Your task to perform on an android device: change keyboard looks Image 0: 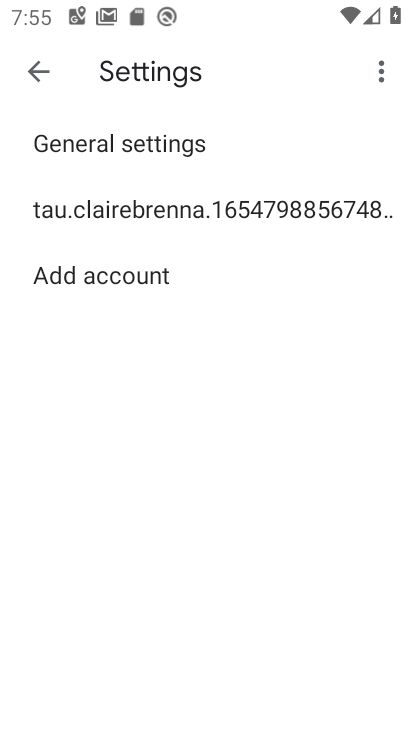
Step 0: press home button
Your task to perform on an android device: change keyboard looks Image 1: 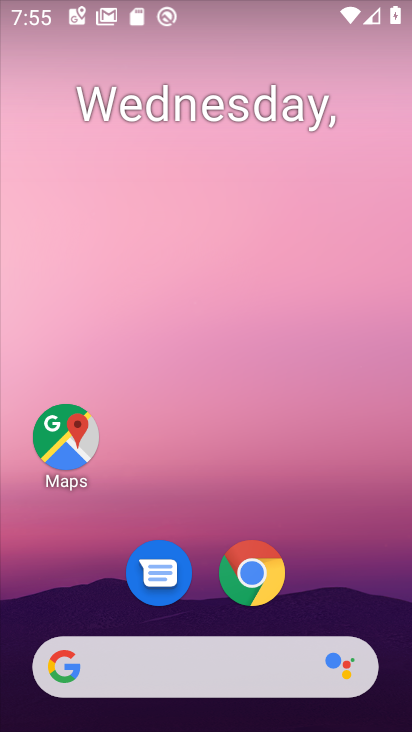
Step 1: drag from (311, 610) to (291, 12)
Your task to perform on an android device: change keyboard looks Image 2: 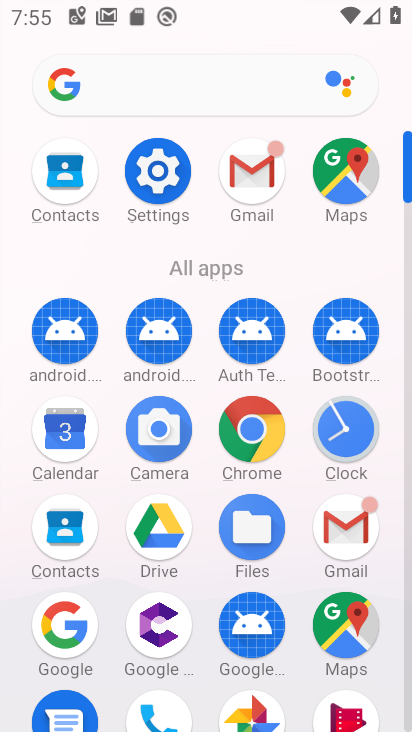
Step 2: click (148, 165)
Your task to perform on an android device: change keyboard looks Image 3: 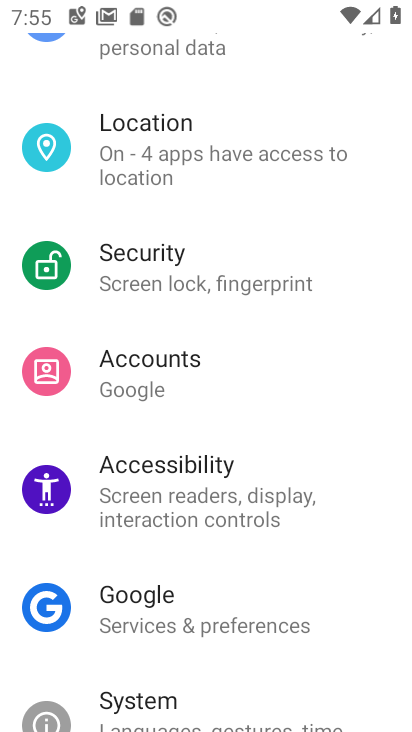
Step 3: drag from (382, 675) to (382, 425)
Your task to perform on an android device: change keyboard looks Image 4: 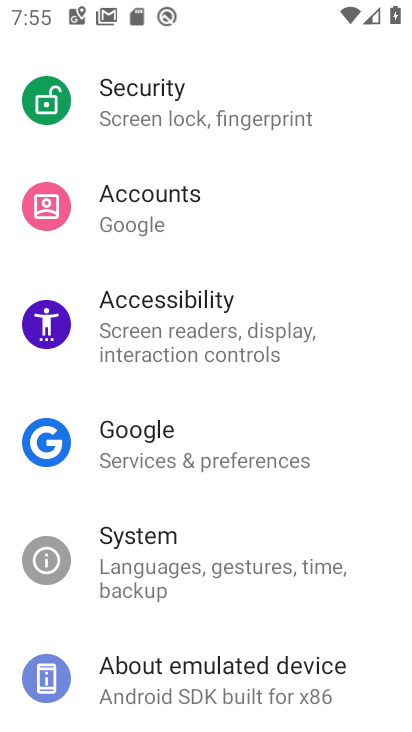
Step 4: click (145, 566)
Your task to perform on an android device: change keyboard looks Image 5: 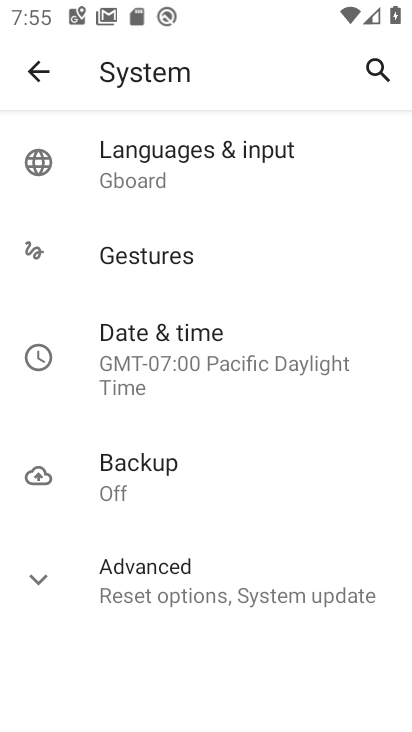
Step 5: click (135, 168)
Your task to perform on an android device: change keyboard looks Image 6: 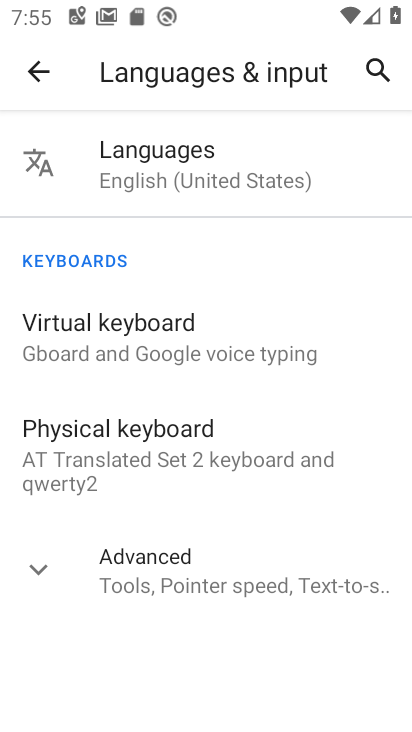
Step 6: click (88, 339)
Your task to perform on an android device: change keyboard looks Image 7: 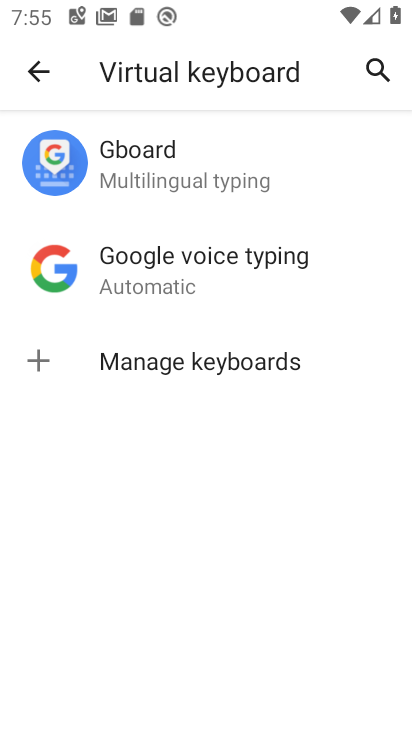
Step 7: click (107, 168)
Your task to perform on an android device: change keyboard looks Image 8: 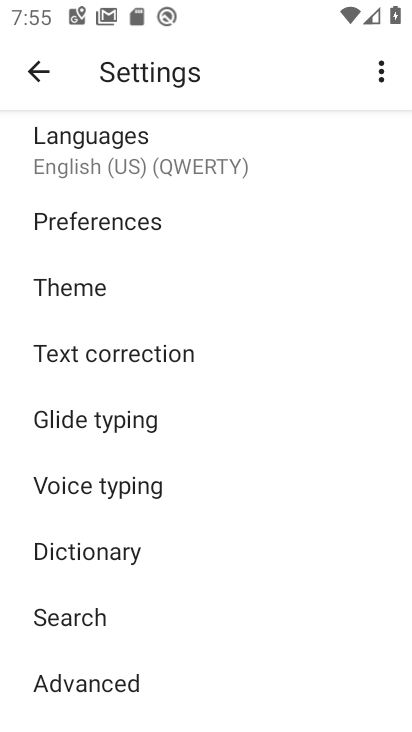
Step 8: click (50, 293)
Your task to perform on an android device: change keyboard looks Image 9: 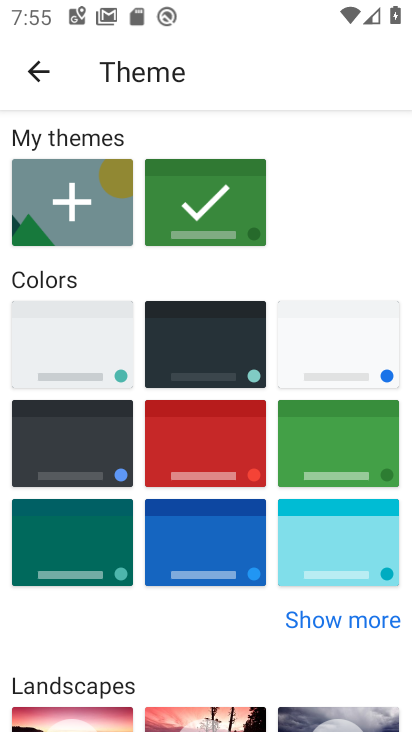
Step 9: click (178, 533)
Your task to perform on an android device: change keyboard looks Image 10: 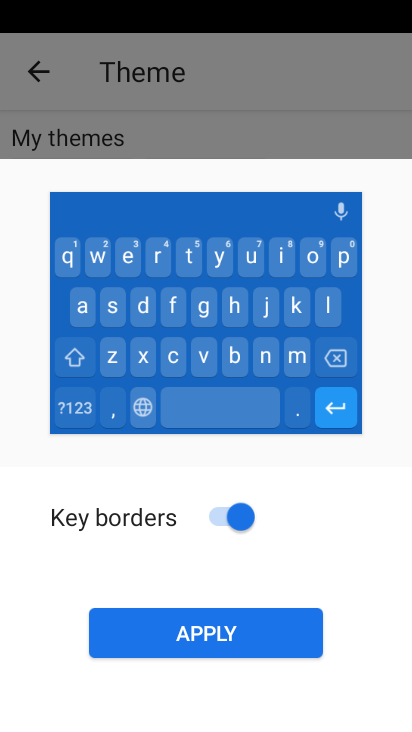
Step 10: click (214, 629)
Your task to perform on an android device: change keyboard looks Image 11: 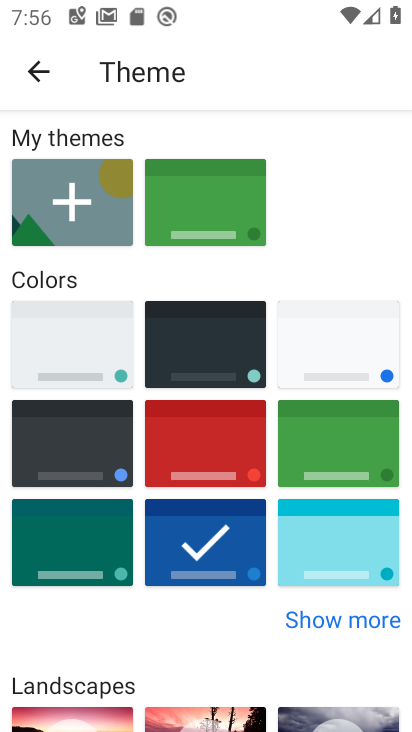
Step 11: task complete